Your task to perform on an android device: Open Youtube and go to "Your channel" Image 0: 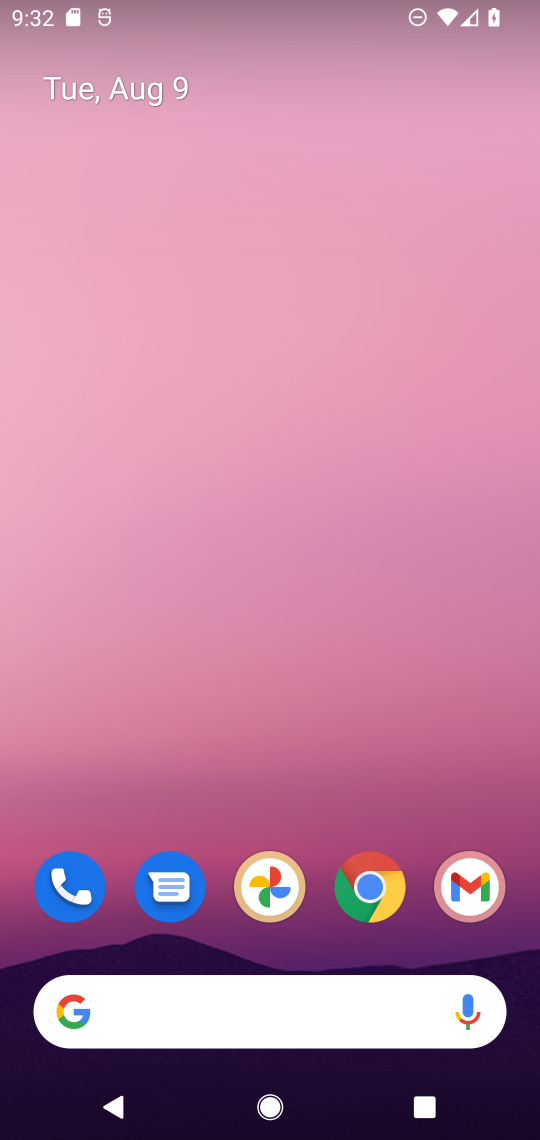
Step 0: drag from (318, 778) to (376, 242)
Your task to perform on an android device: Open Youtube and go to "Your channel" Image 1: 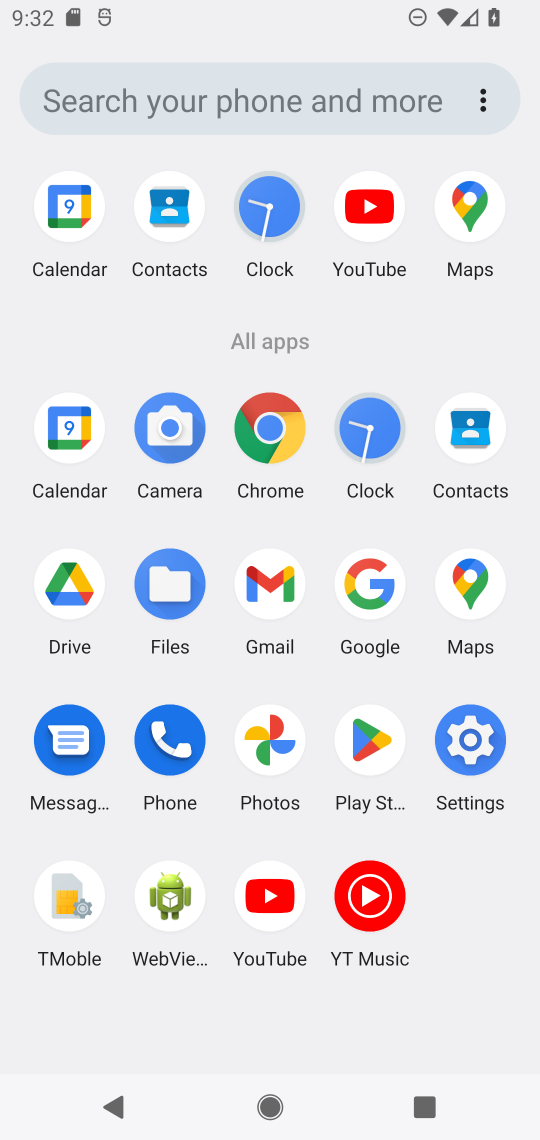
Step 1: click (378, 224)
Your task to perform on an android device: Open Youtube and go to "Your channel" Image 2: 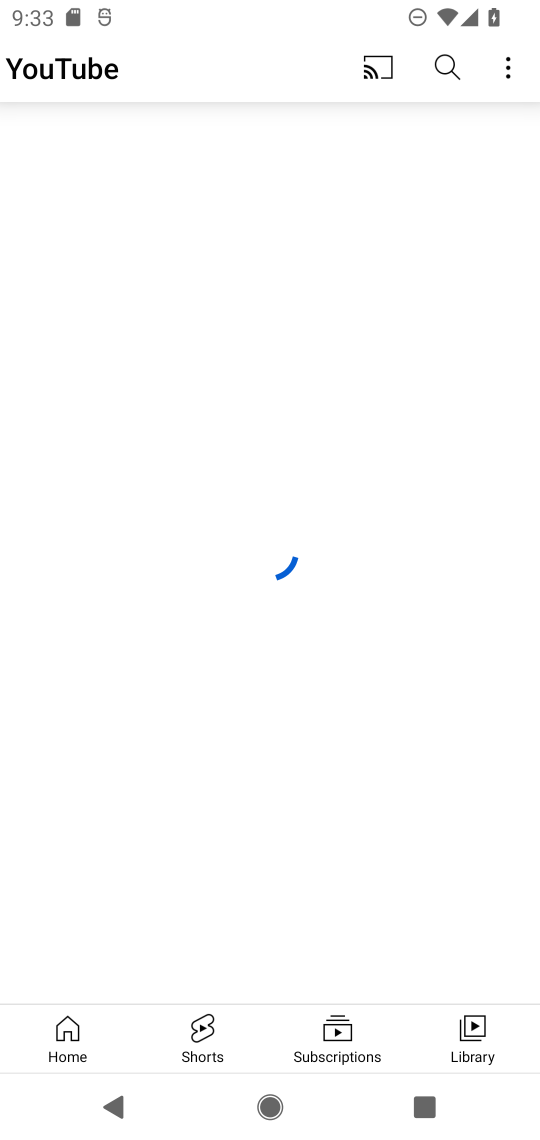
Step 2: click (509, 71)
Your task to perform on an android device: Open Youtube and go to "Your channel" Image 3: 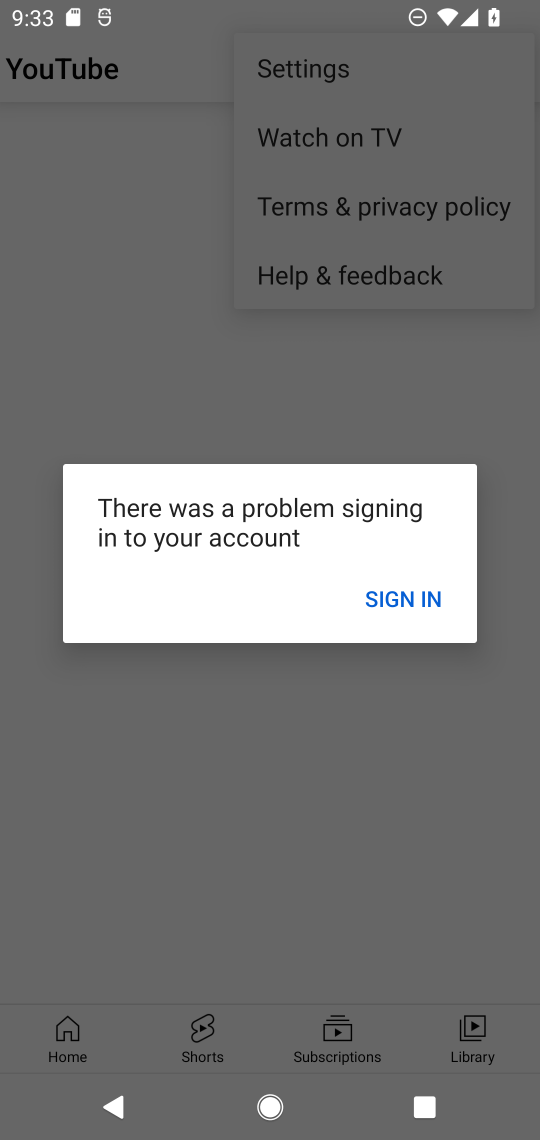
Step 3: task complete